Your task to perform on an android device: turn off sleep mode Image 0: 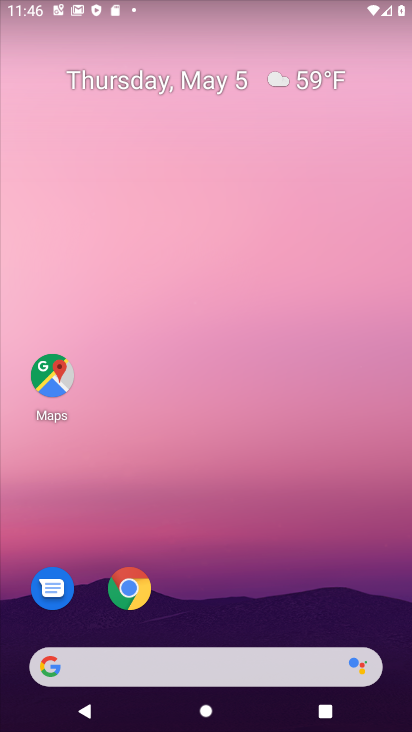
Step 0: drag from (173, 662) to (386, 29)
Your task to perform on an android device: turn off sleep mode Image 1: 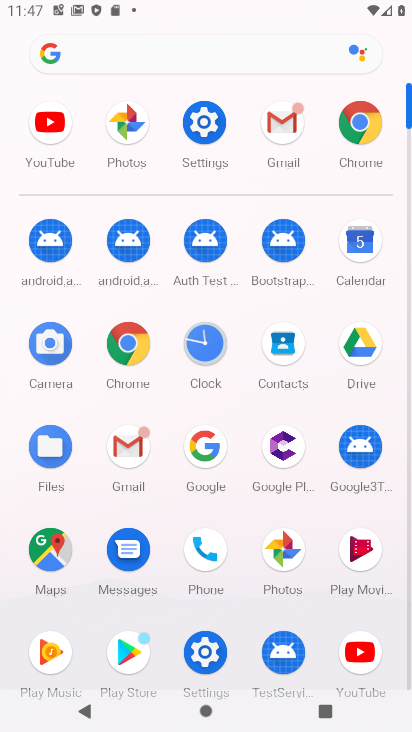
Step 1: click (199, 127)
Your task to perform on an android device: turn off sleep mode Image 2: 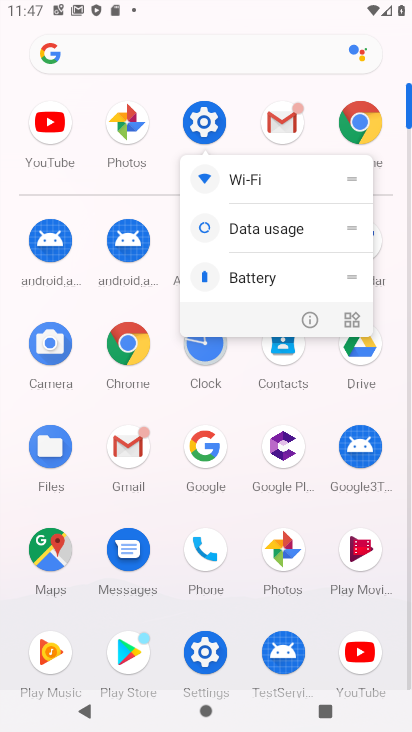
Step 2: click (200, 121)
Your task to perform on an android device: turn off sleep mode Image 3: 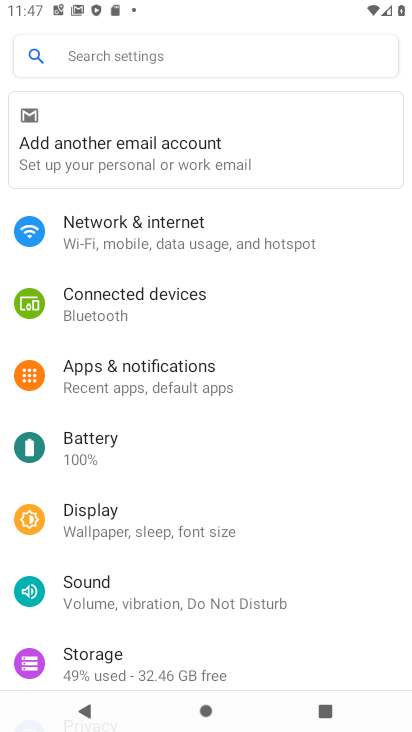
Step 3: click (83, 511)
Your task to perform on an android device: turn off sleep mode Image 4: 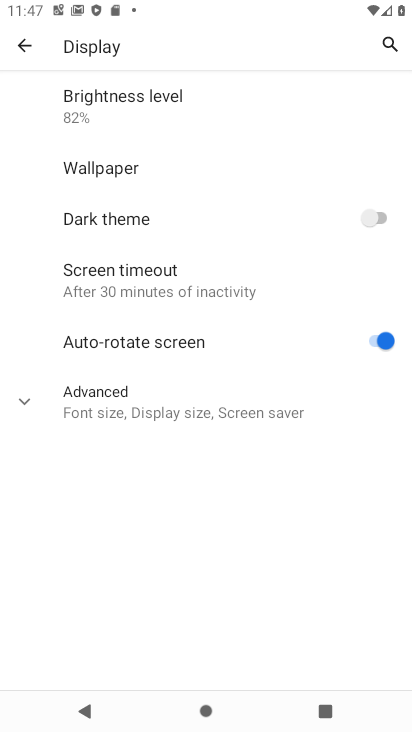
Step 4: task complete